Your task to perform on an android device: turn on wifi Image 0: 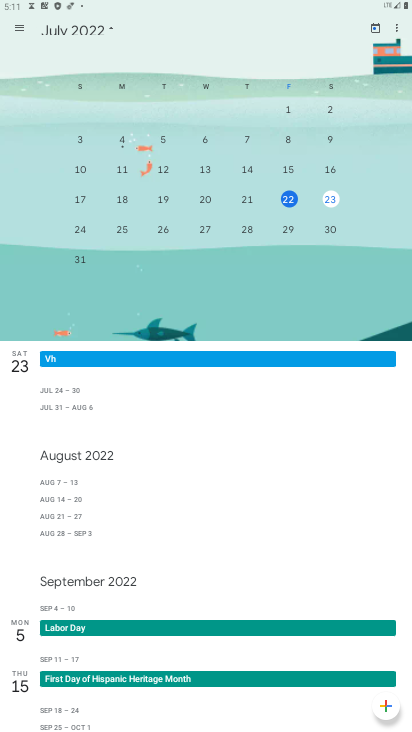
Step 0: press home button
Your task to perform on an android device: turn on wifi Image 1: 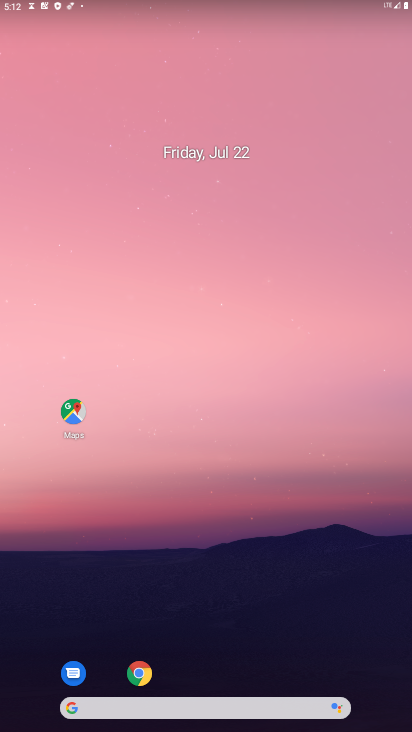
Step 1: drag from (313, 309) to (403, 604)
Your task to perform on an android device: turn on wifi Image 2: 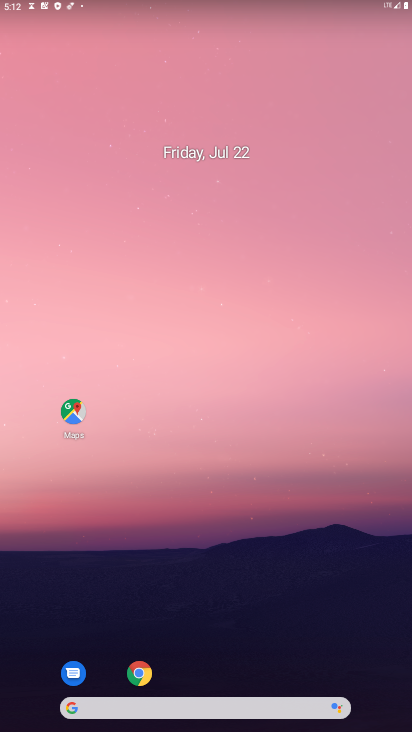
Step 2: drag from (226, 31) to (412, 563)
Your task to perform on an android device: turn on wifi Image 3: 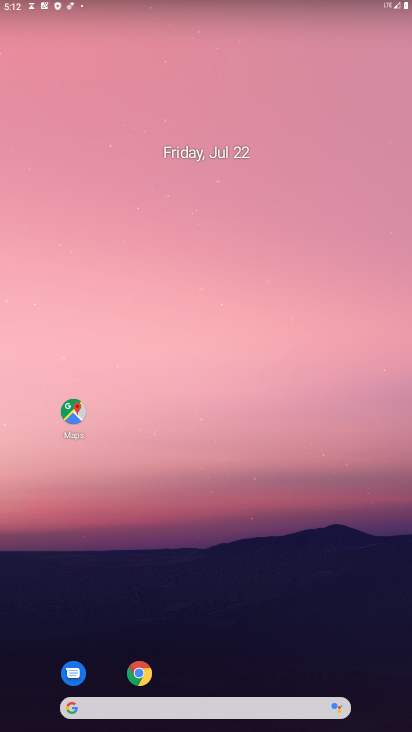
Step 3: drag from (185, 6) to (247, 554)
Your task to perform on an android device: turn on wifi Image 4: 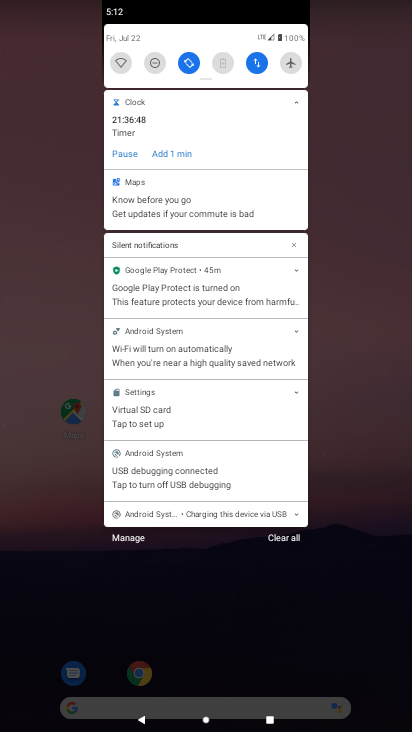
Step 4: click (134, 65)
Your task to perform on an android device: turn on wifi Image 5: 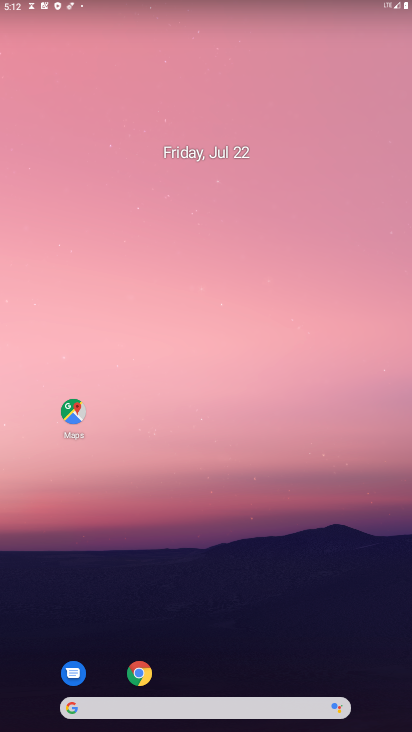
Step 5: drag from (187, 0) to (172, 403)
Your task to perform on an android device: turn on wifi Image 6: 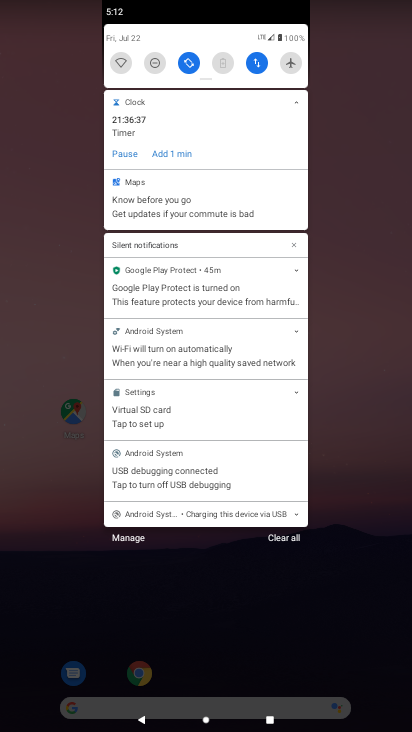
Step 6: click (124, 58)
Your task to perform on an android device: turn on wifi Image 7: 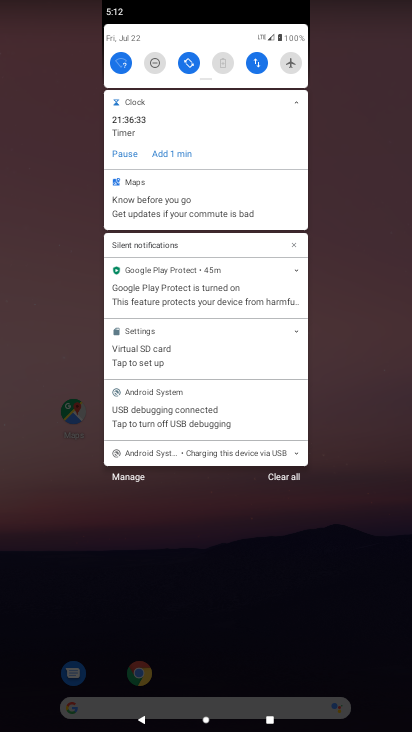
Step 7: task complete